Your task to perform on an android device: see sites visited before in the chrome app Image 0: 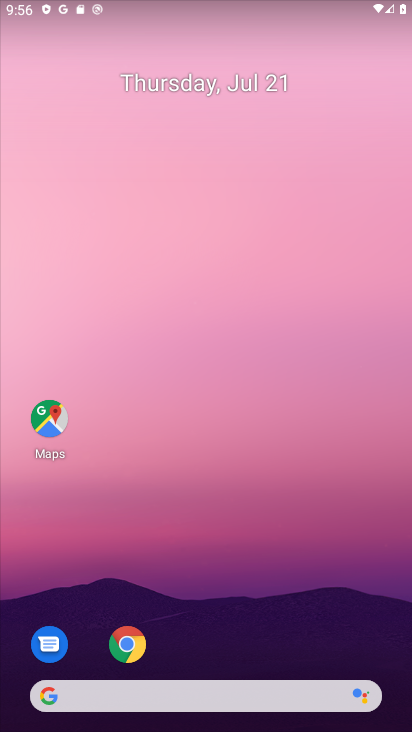
Step 0: press home button
Your task to perform on an android device: see sites visited before in the chrome app Image 1: 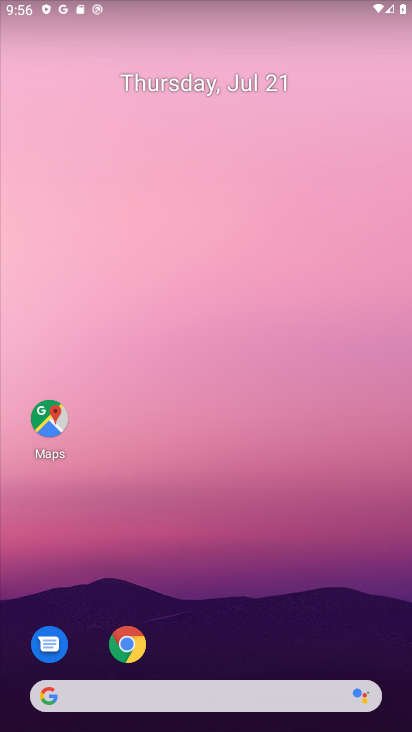
Step 1: click (130, 640)
Your task to perform on an android device: see sites visited before in the chrome app Image 2: 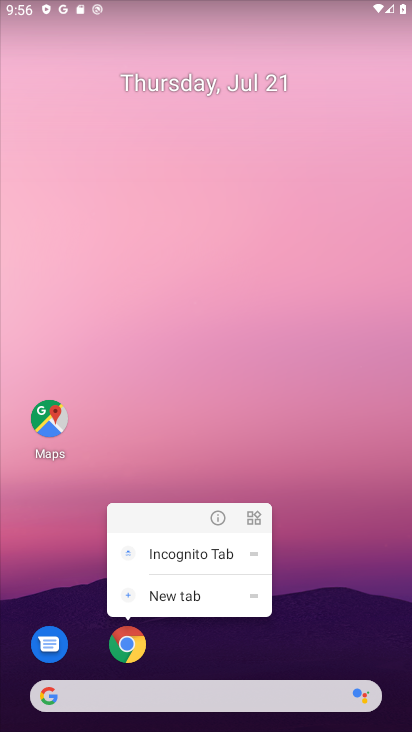
Step 2: click (126, 641)
Your task to perform on an android device: see sites visited before in the chrome app Image 3: 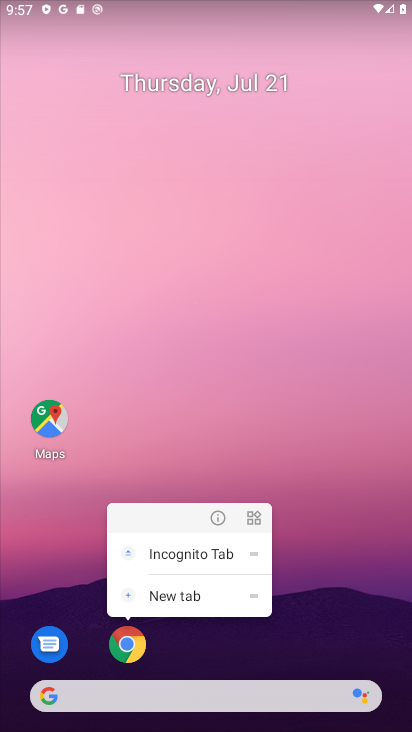
Step 3: click (126, 641)
Your task to perform on an android device: see sites visited before in the chrome app Image 4: 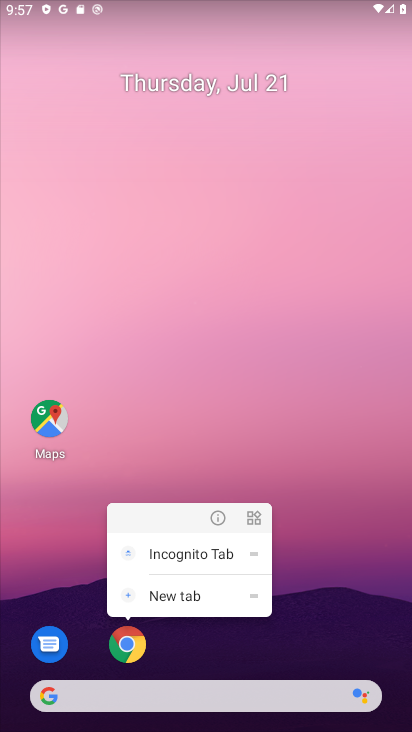
Step 4: click (126, 641)
Your task to perform on an android device: see sites visited before in the chrome app Image 5: 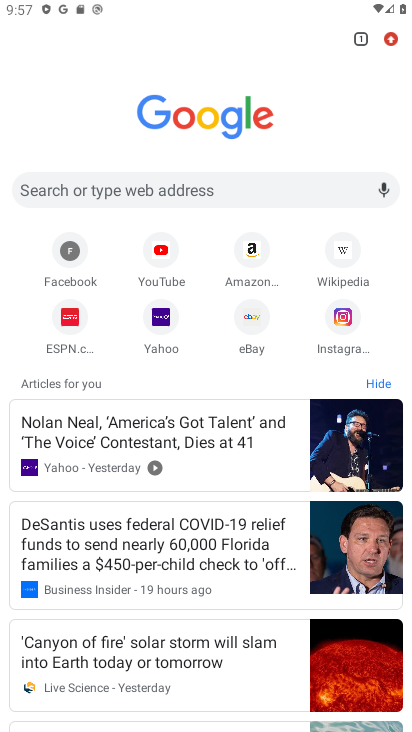
Step 5: click (390, 36)
Your task to perform on an android device: see sites visited before in the chrome app Image 6: 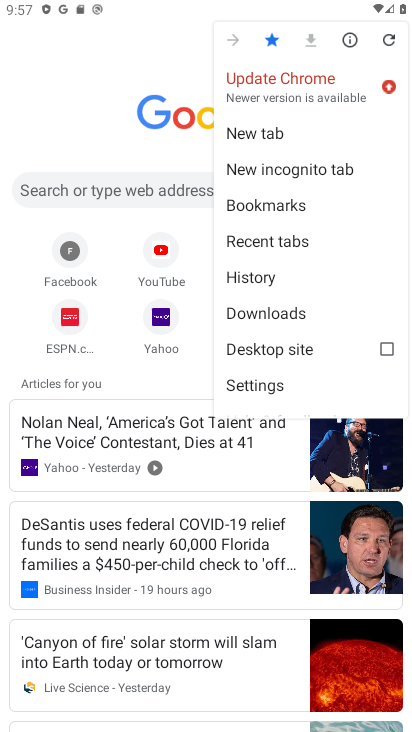
Step 6: click (275, 274)
Your task to perform on an android device: see sites visited before in the chrome app Image 7: 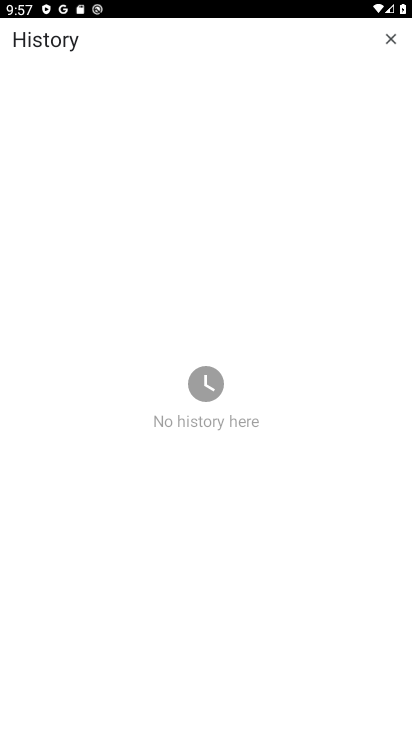
Step 7: task complete